Your task to perform on an android device: Show me the alarms in the clock app Image 0: 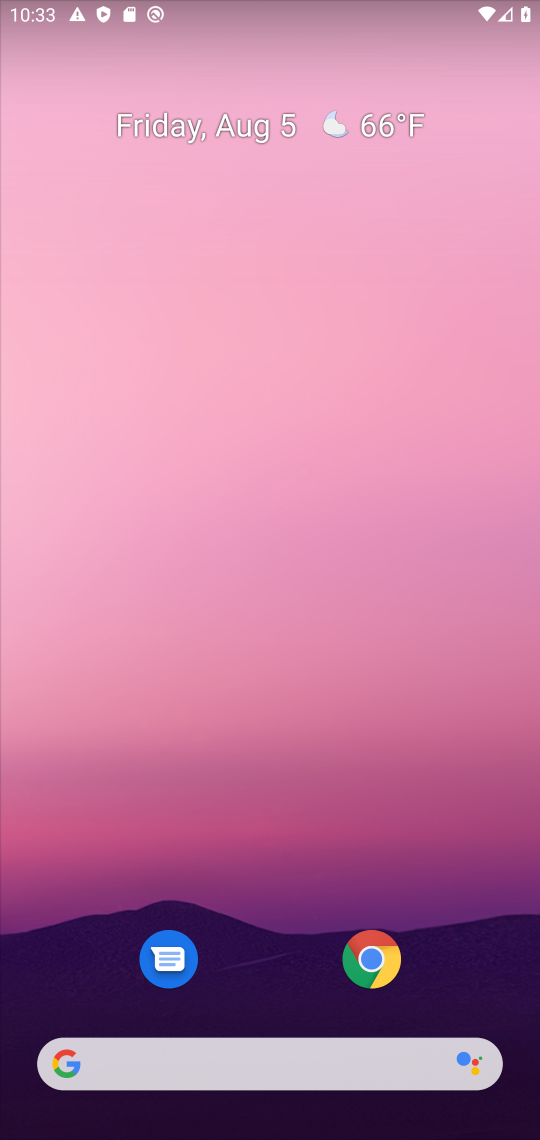
Step 0: drag from (330, 1072) to (339, 229)
Your task to perform on an android device: Show me the alarms in the clock app Image 1: 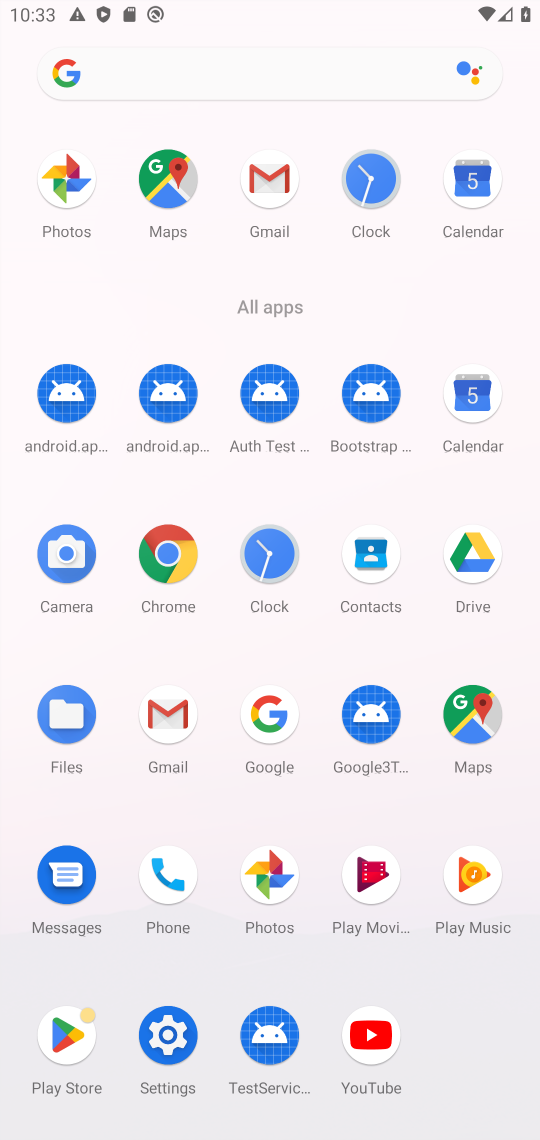
Step 1: click (248, 574)
Your task to perform on an android device: Show me the alarms in the clock app Image 2: 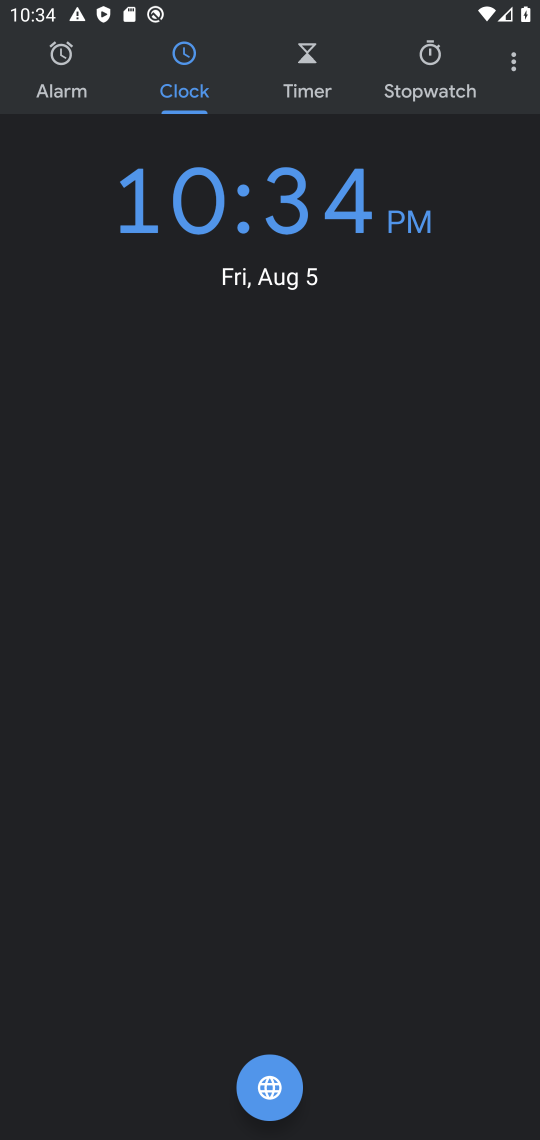
Step 2: click (61, 65)
Your task to perform on an android device: Show me the alarms in the clock app Image 3: 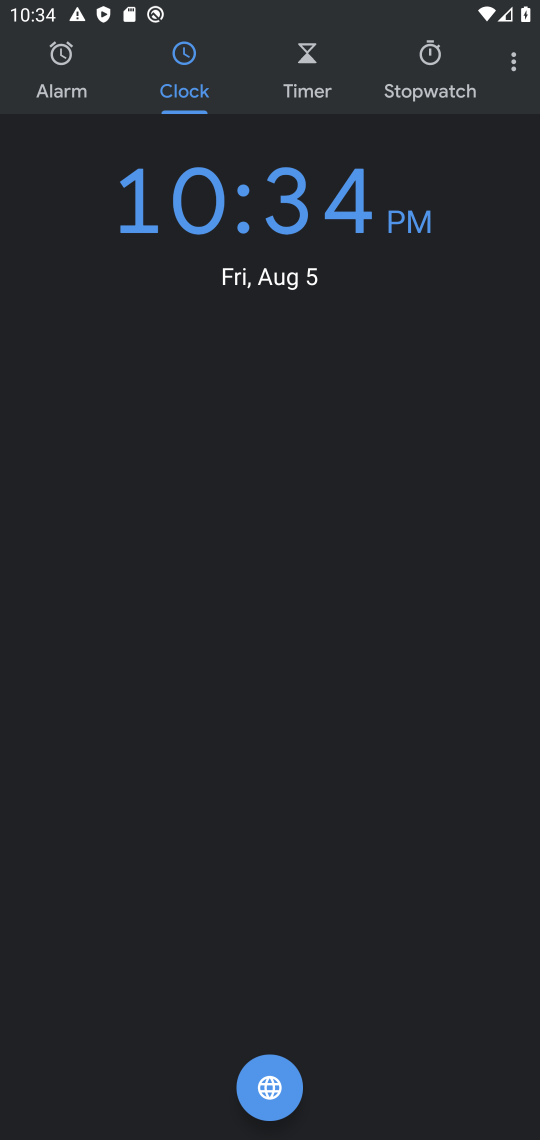
Step 3: click (65, 77)
Your task to perform on an android device: Show me the alarms in the clock app Image 4: 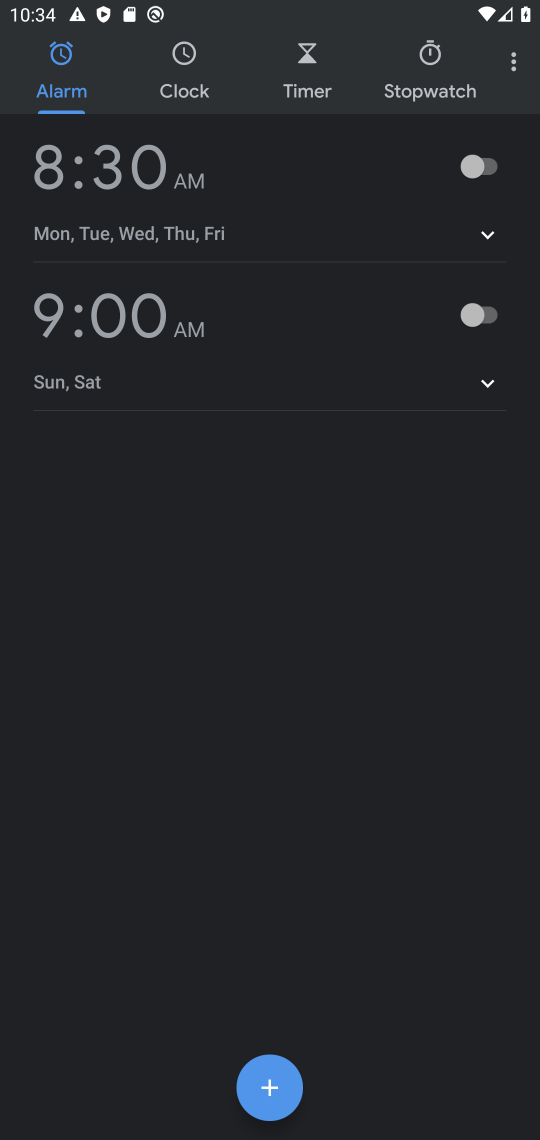
Step 4: task complete